Your task to perform on an android device: Is it going to rain this weekend? Image 0: 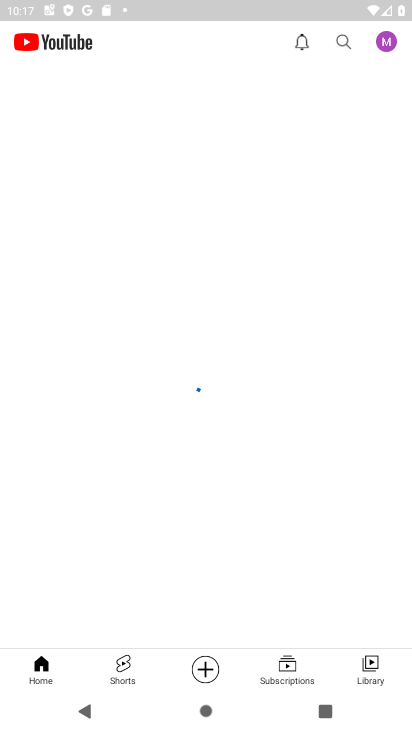
Step 0: press home button
Your task to perform on an android device: Is it going to rain this weekend? Image 1: 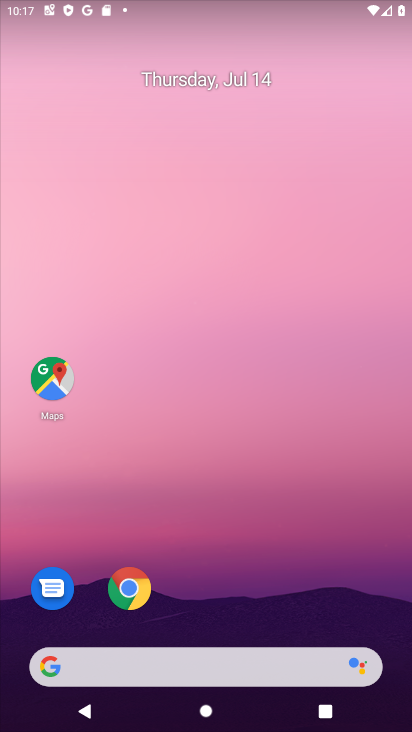
Step 1: press home button
Your task to perform on an android device: Is it going to rain this weekend? Image 2: 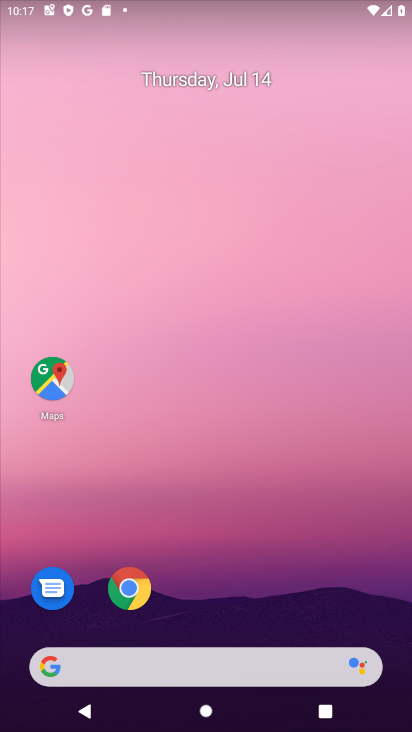
Step 2: click (154, 672)
Your task to perform on an android device: Is it going to rain this weekend? Image 3: 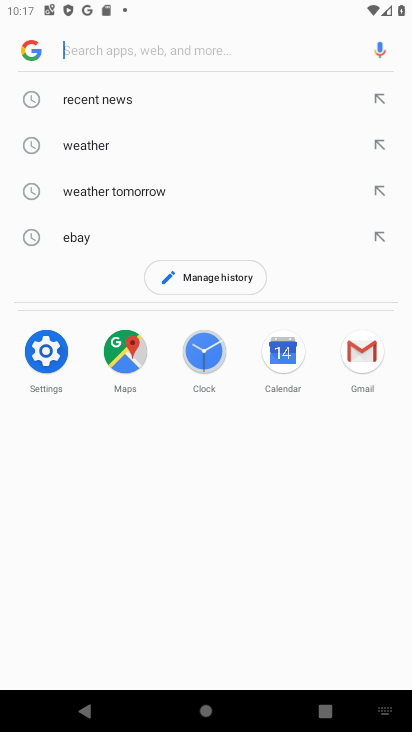
Step 3: click (97, 147)
Your task to perform on an android device: Is it going to rain this weekend? Image 4: 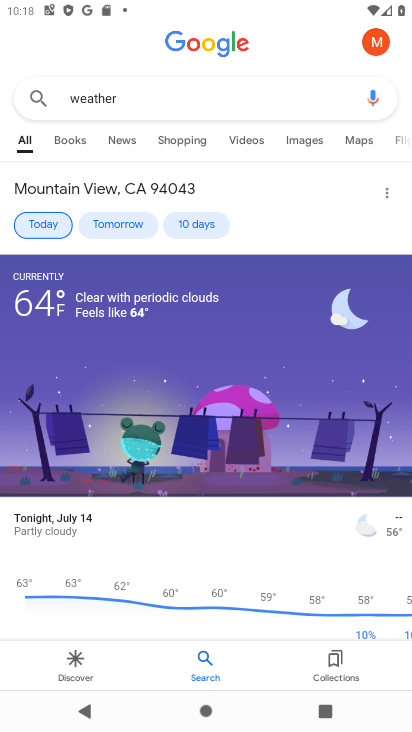
Step 4: click (189, 224)
Your task to perform on an android device: Is it going to rain this weekend? Image 5: 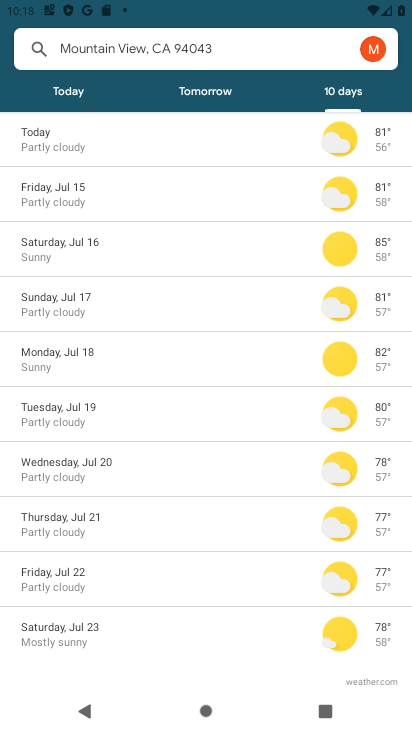
Step 5: click (105, 249)
Your task to perform on an android device: Is it going to rain this weekend? Image 6: 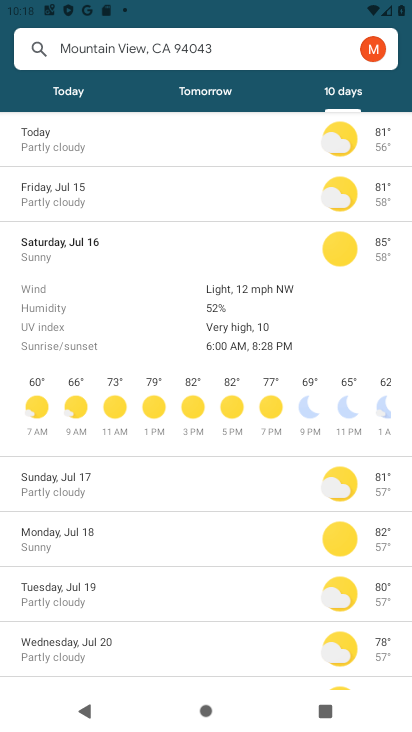
Step 6: task complete